Your task to perform on an android device: Add "logitech g pro" to the cart on amazon, then select checkout. Image 0: 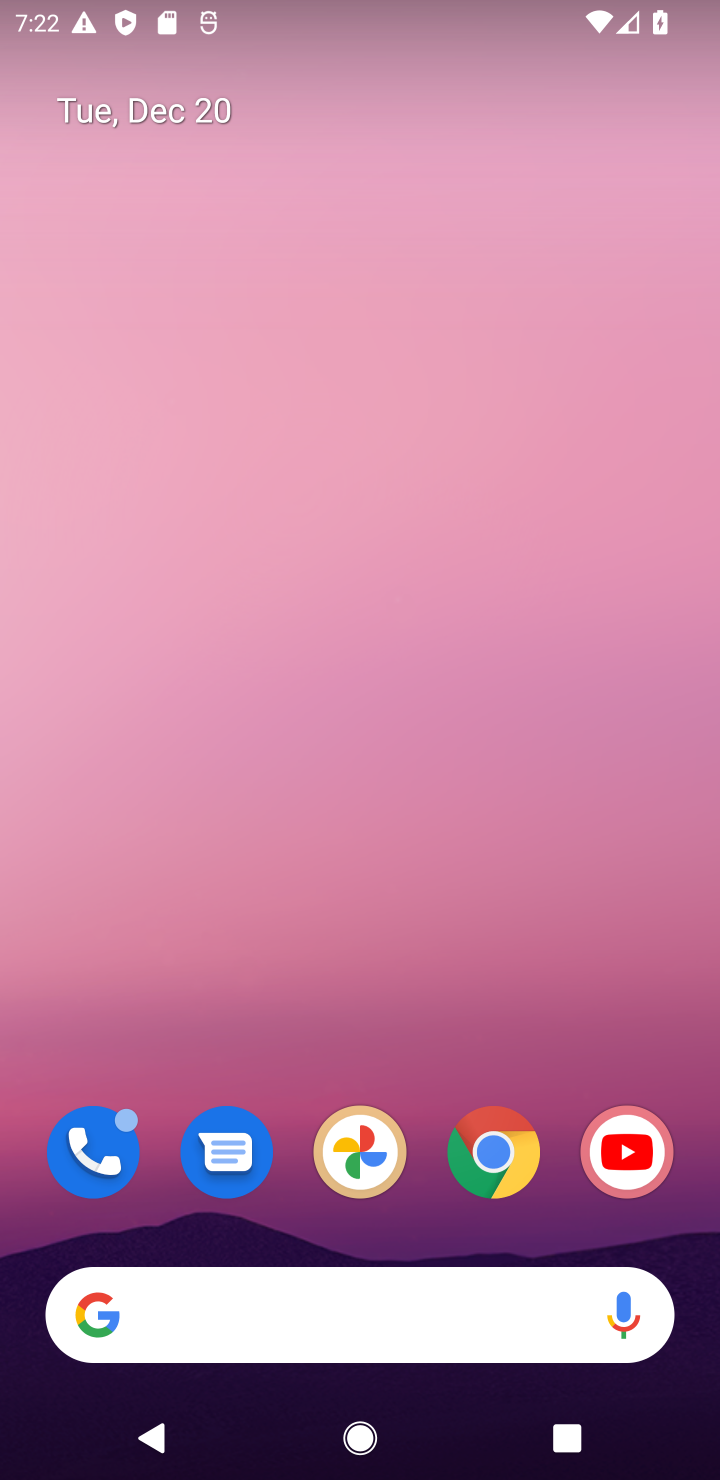
Step 0: click (481, 1148)
Your task to perform on an android device: Add "logitech g pro" to the cart on amazon, then select checkout. Image 1: 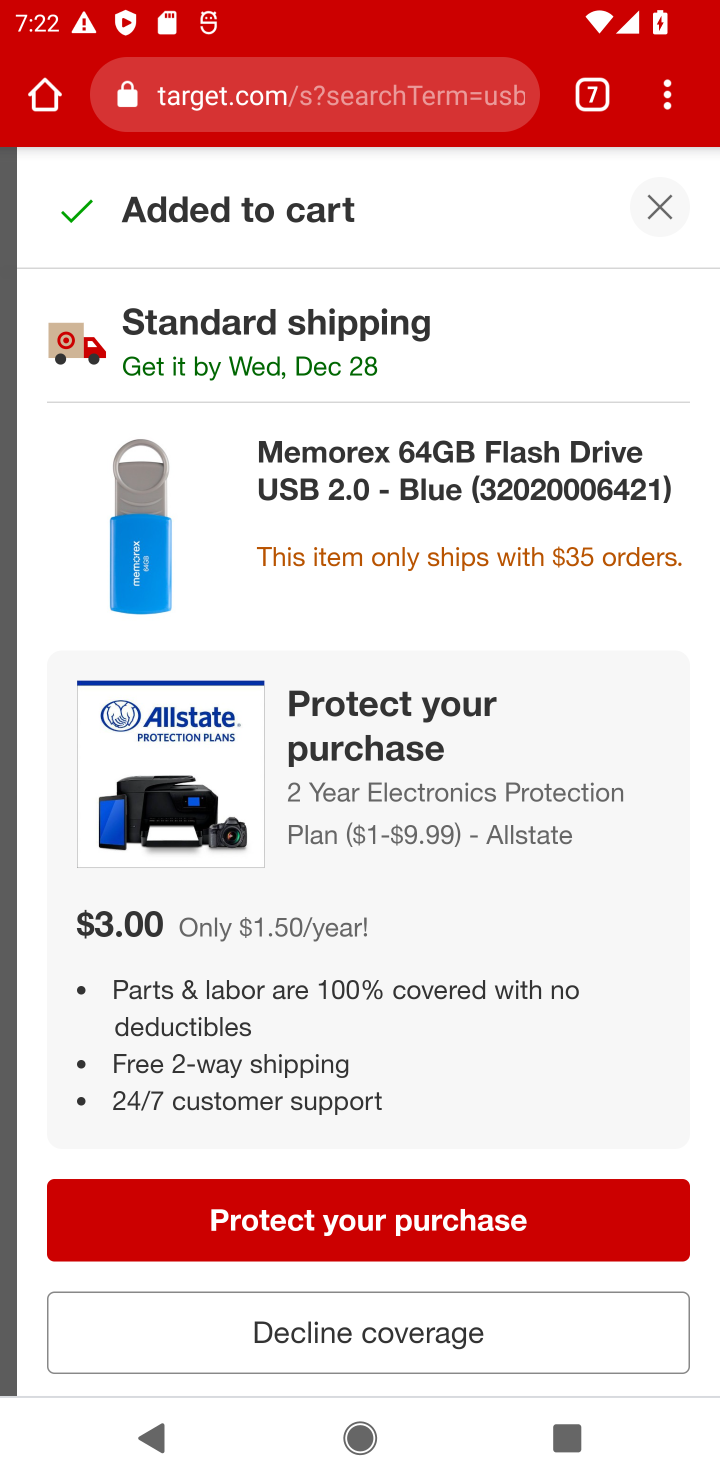
Step 1: click (601, 87)
Your task to perform on an android device: Add "logitech g pro" to the cart on amazon, then select checkout. Image 2: 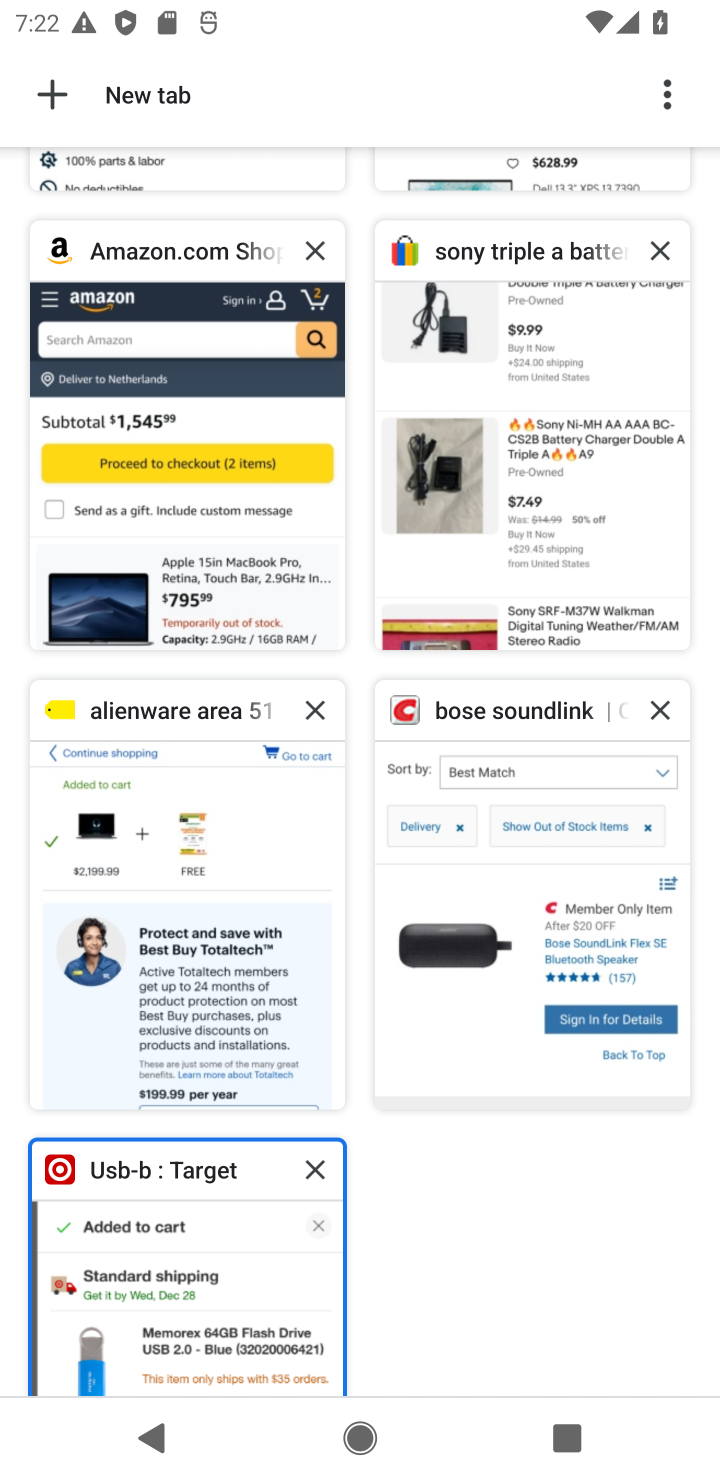
Step 2: press home button
Your task to perform on an android device: Add "logitech g pro" to the cart on amazon, then select checkout. Image 3: 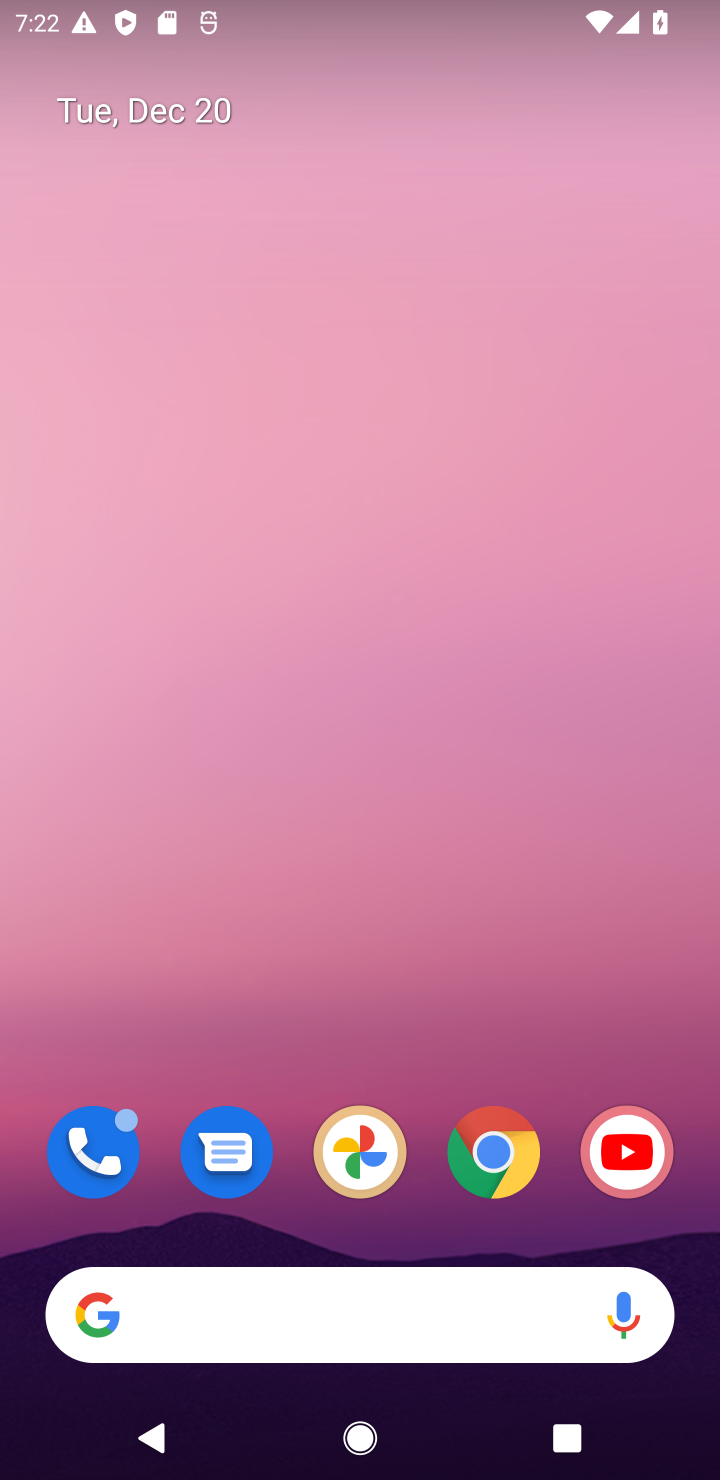
Step 3: click (484, 1155)
Your task to perform on an android device: Add "logitech g pro" to the cart on amazon, then select checkout. Image 4: 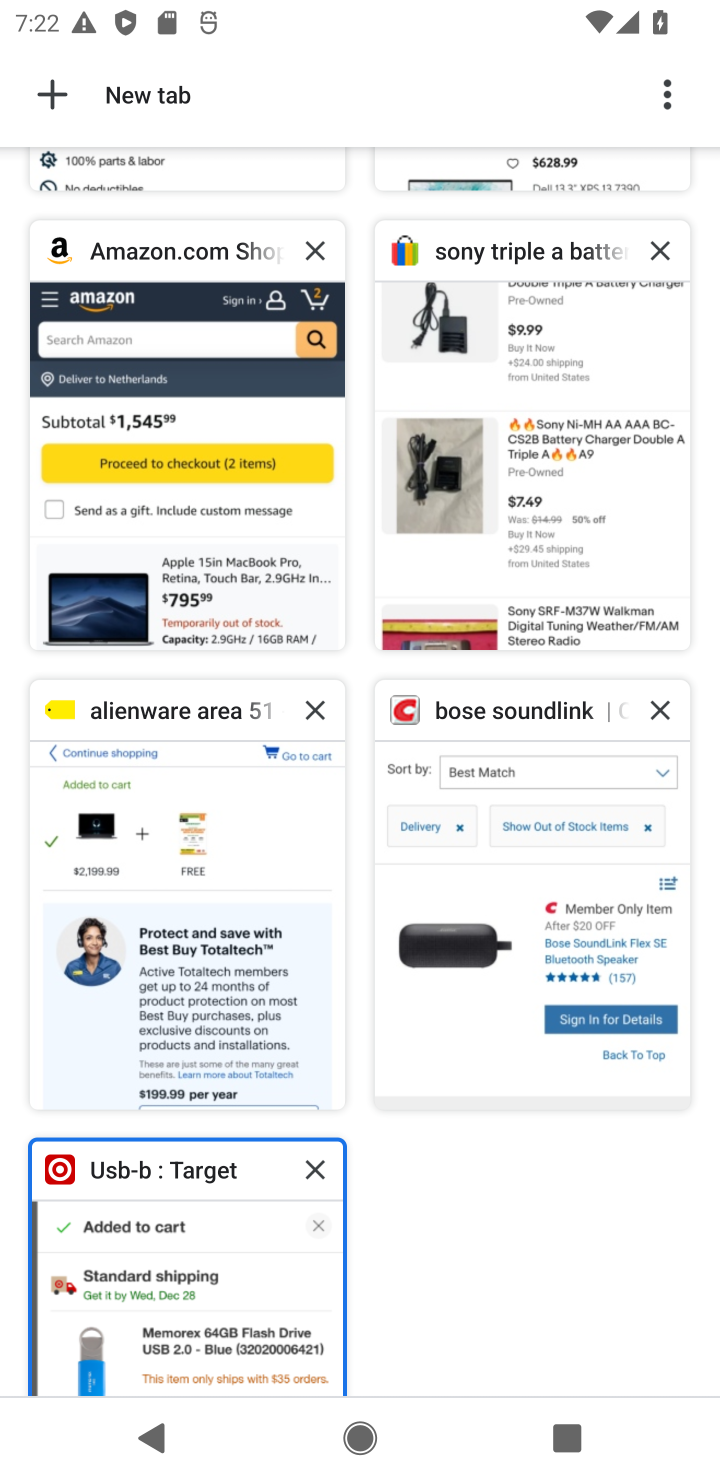
Step 4: click (210, 517)
Your task to perform on an android device: Add "logitech g pro" to the cart on amazon, then select checkout. Image 5: 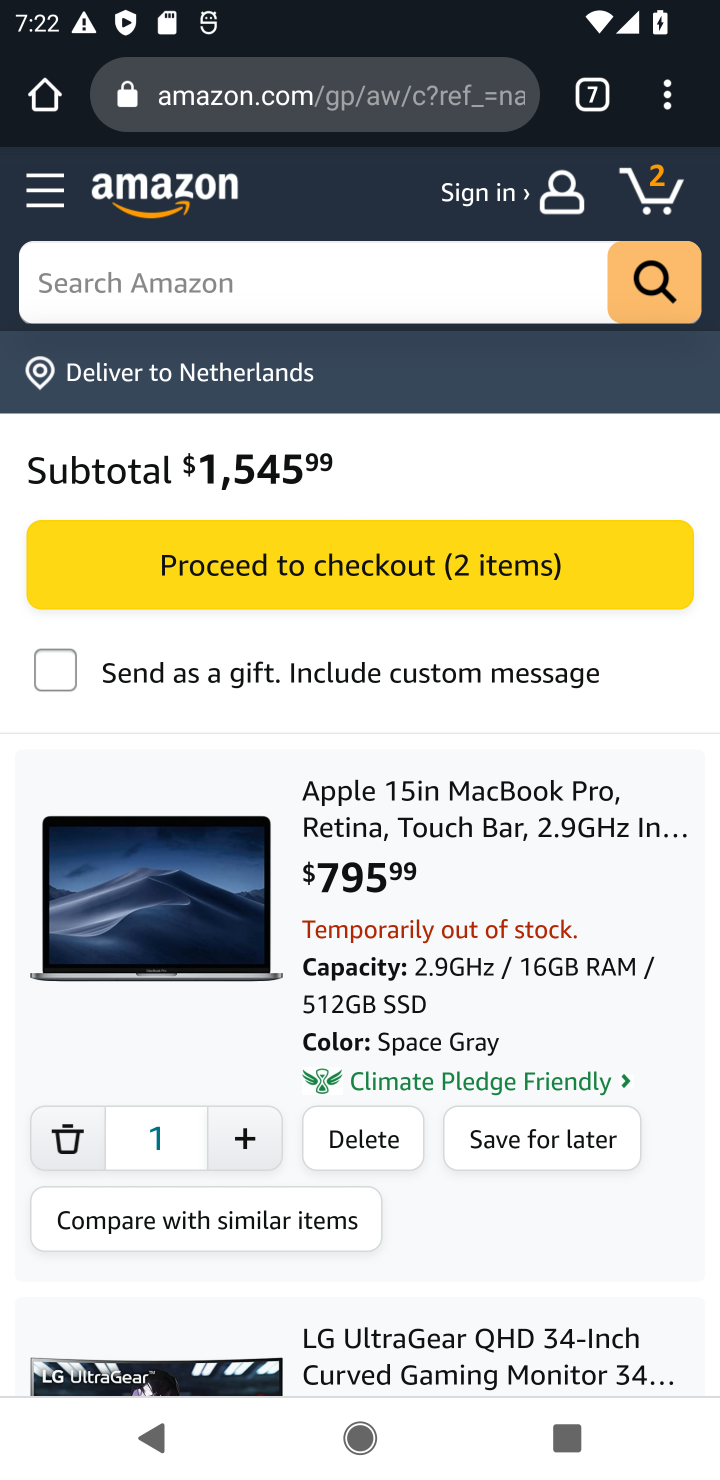
Step 5: click (281, 274)
Your task to perform on an android device: Add "logitech g pro" to the cart on amazon, then select checkout. Image 6: 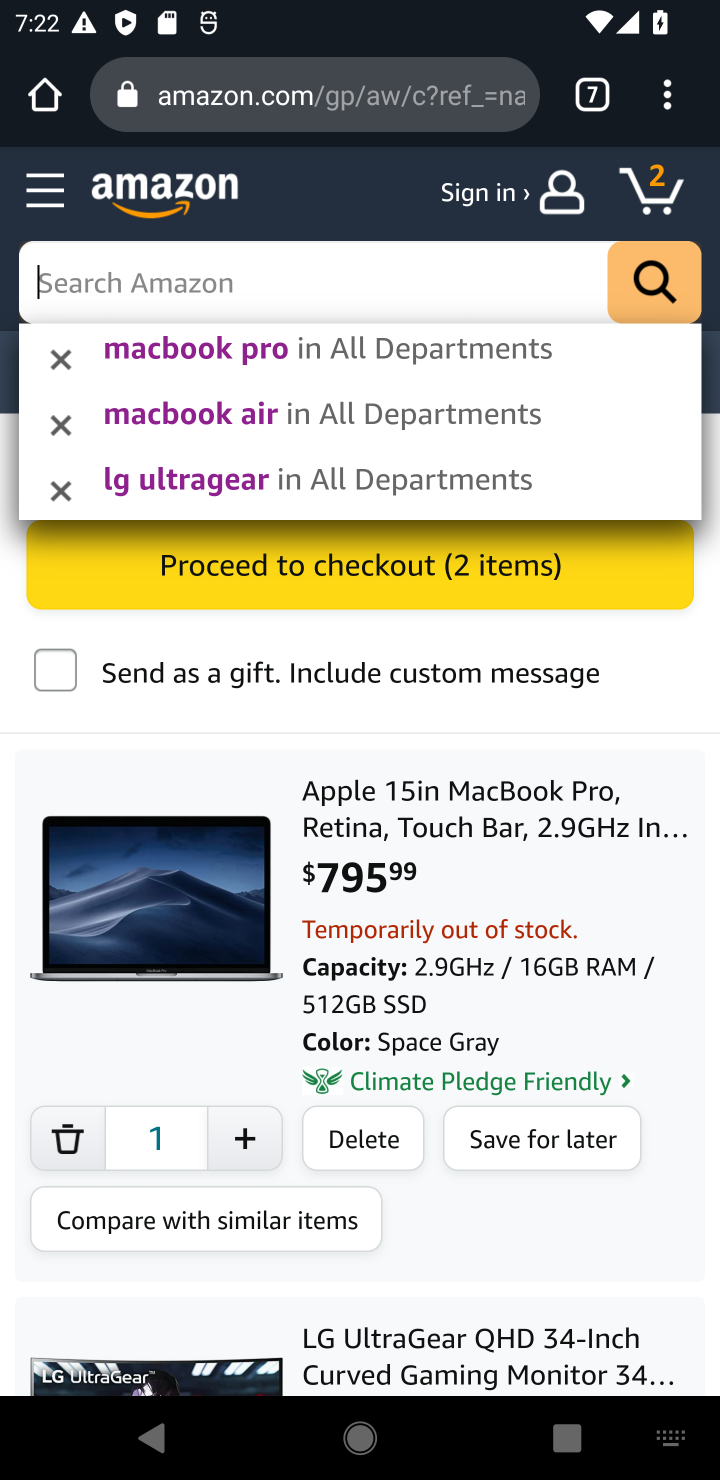
Step 6: type "logitech g pro"
Your task to perform on an android device: Add "logitech g pro" to the cart on amazon, then select checkout. Image 7: 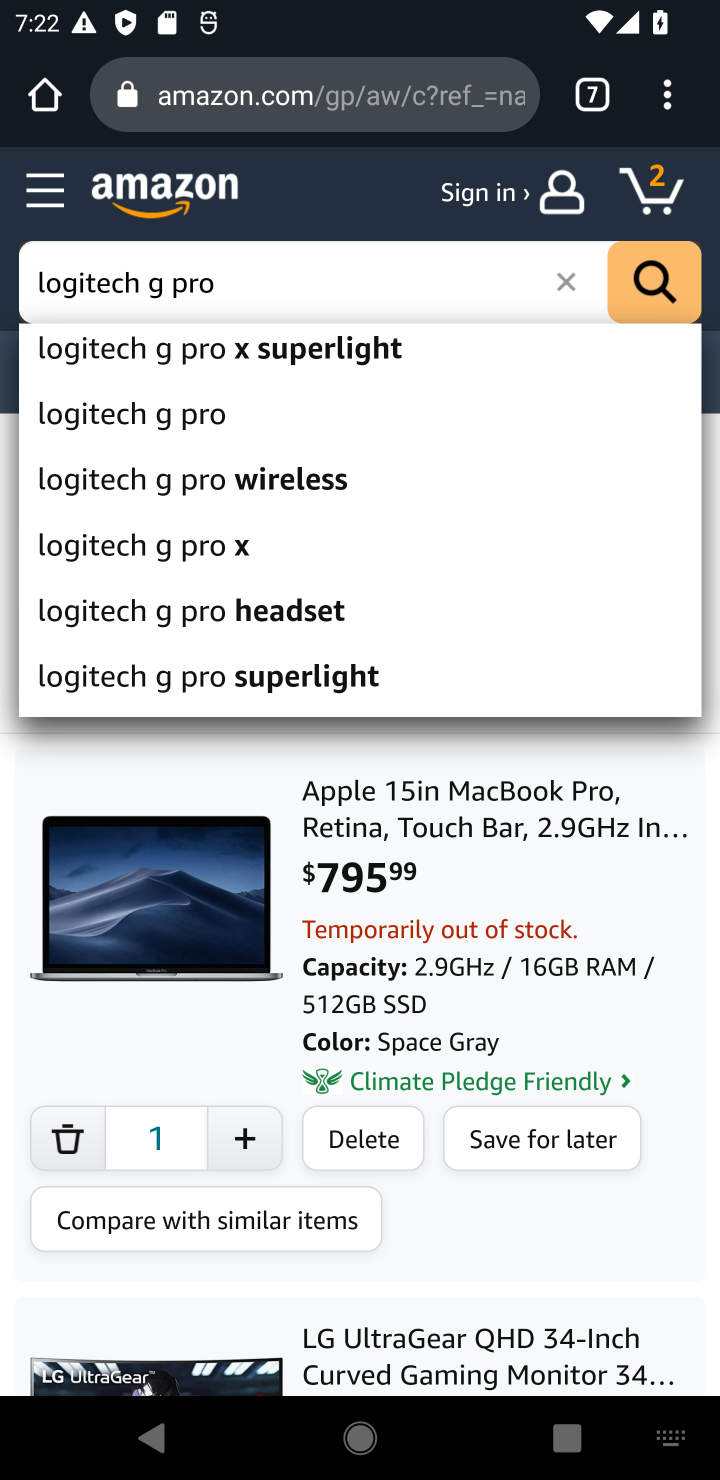
Step 7: click (179, 411)
Your task to perform on an android device: Add "logitech g pro" to the cart on amazon, then select checkout. Image 8: 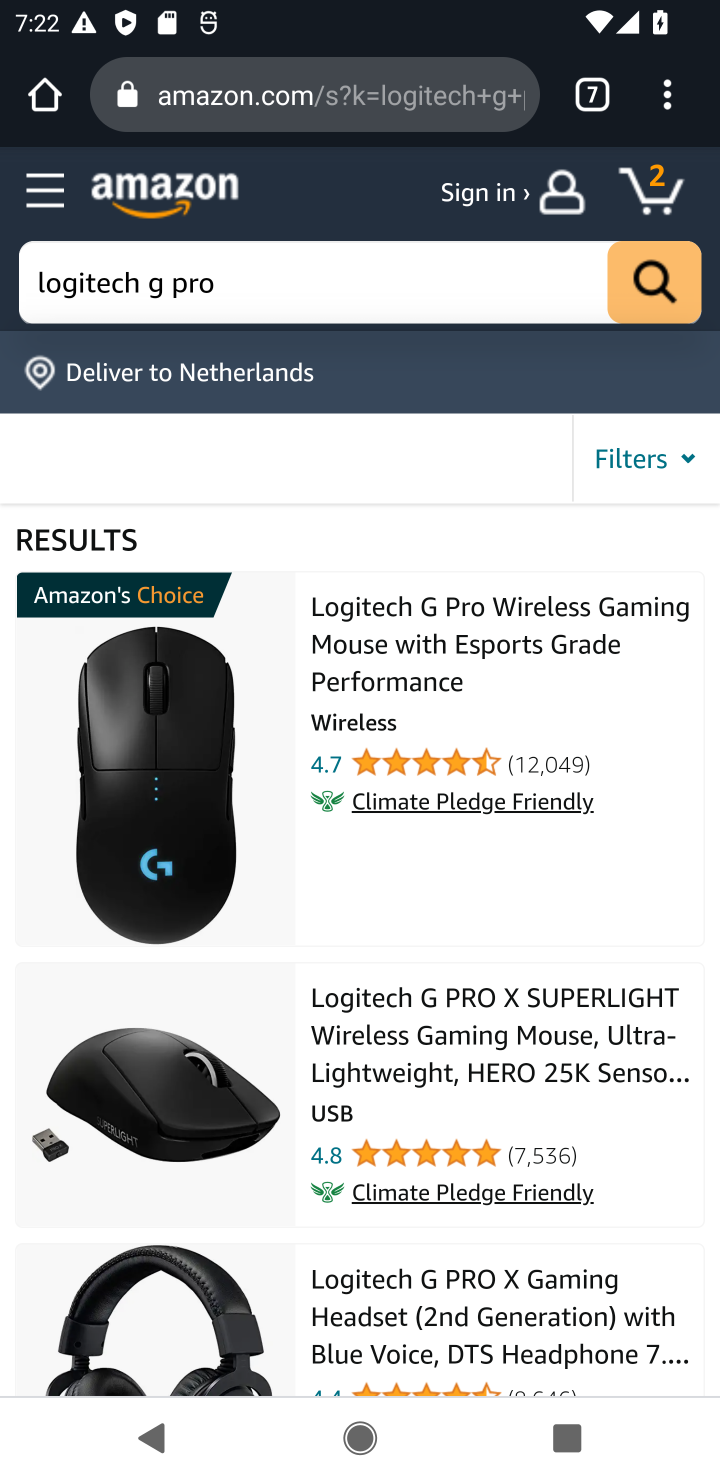
Step 8: click (390, 645)
Your task to perform on an android device: Add "logitech g pro" to the cart on amazon, then select checkout. Image 9: 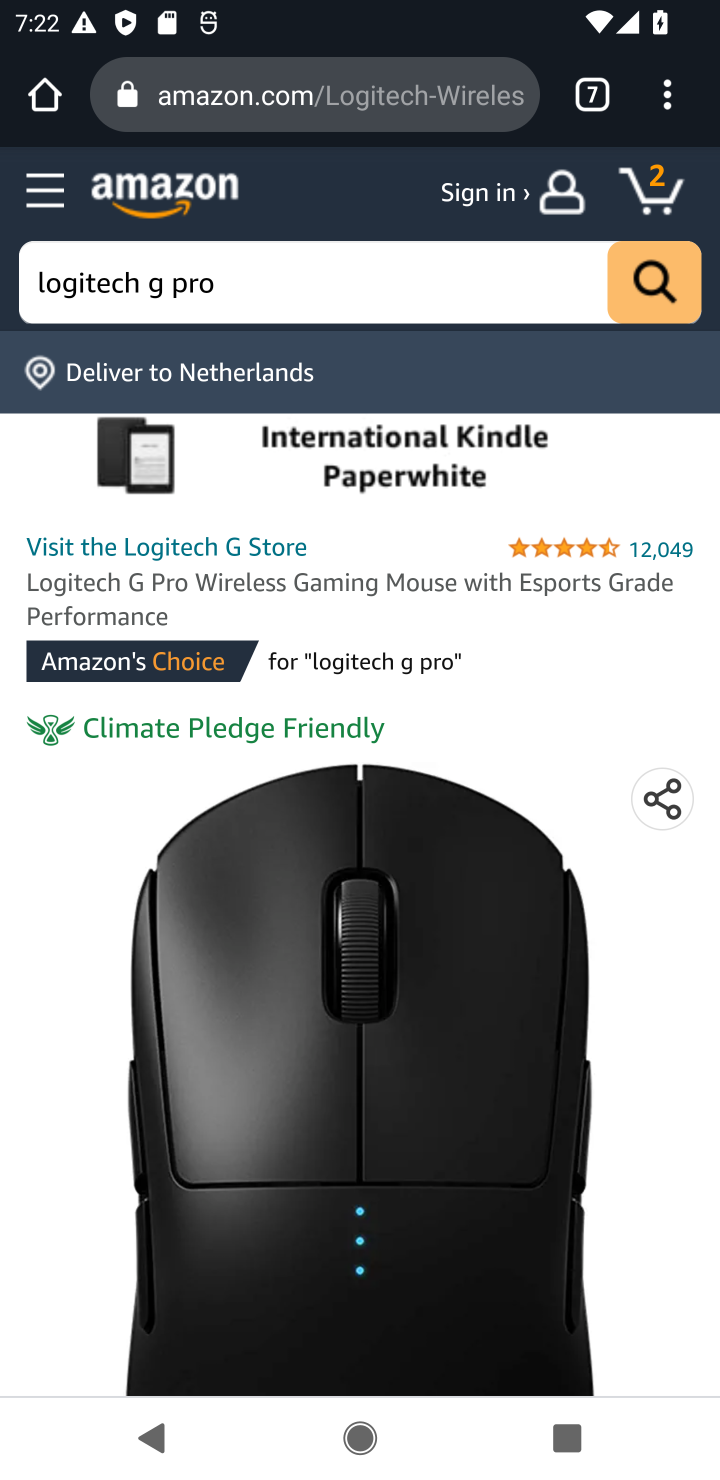
Step 9: drag from (430, 868) to (482, 319)
Your task to perform on an android device: Add "logitech g pro" to the cart on amazon, then select checkout. Image 10: 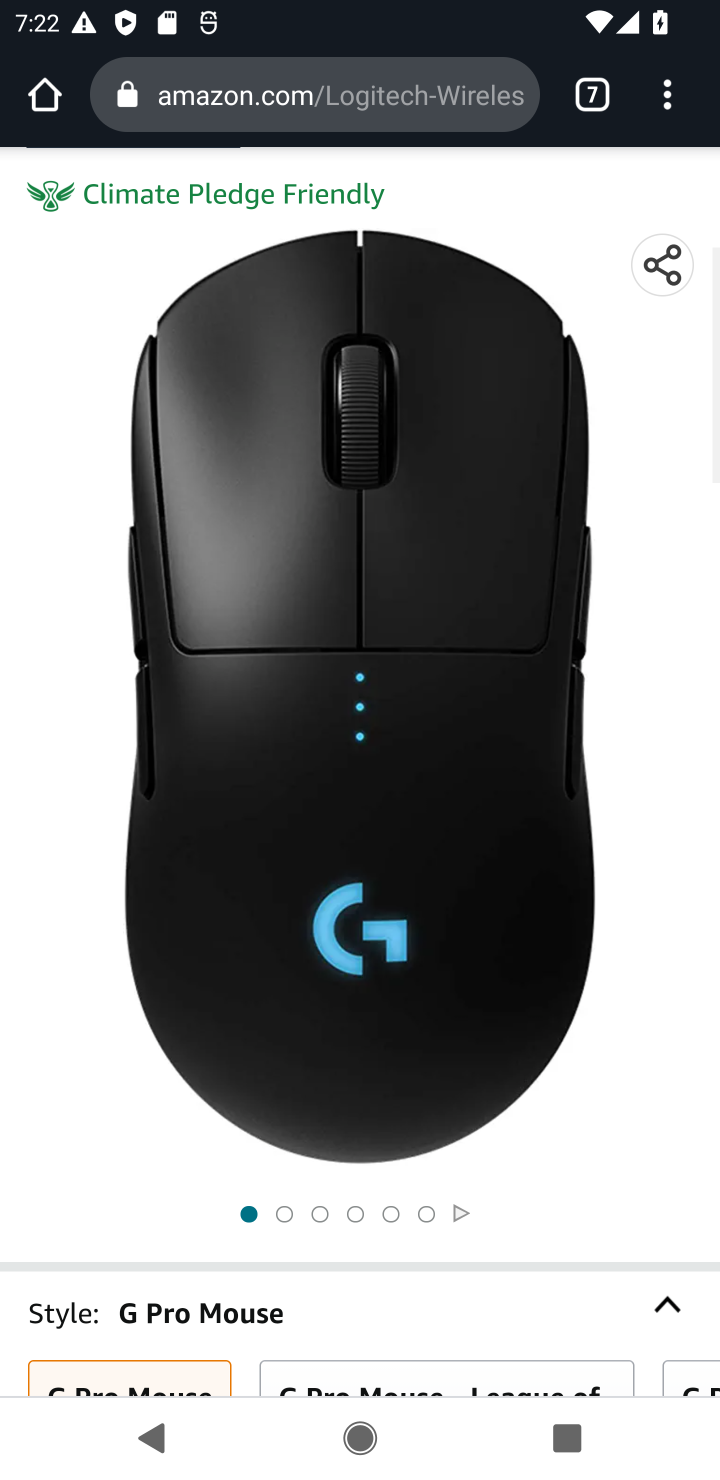
Step 10: drag from (388, 954) to (457, 387)
Your task to perform on an android device: Add "logitech g pro" to the cart on amazon, then select checkout. Image 11: 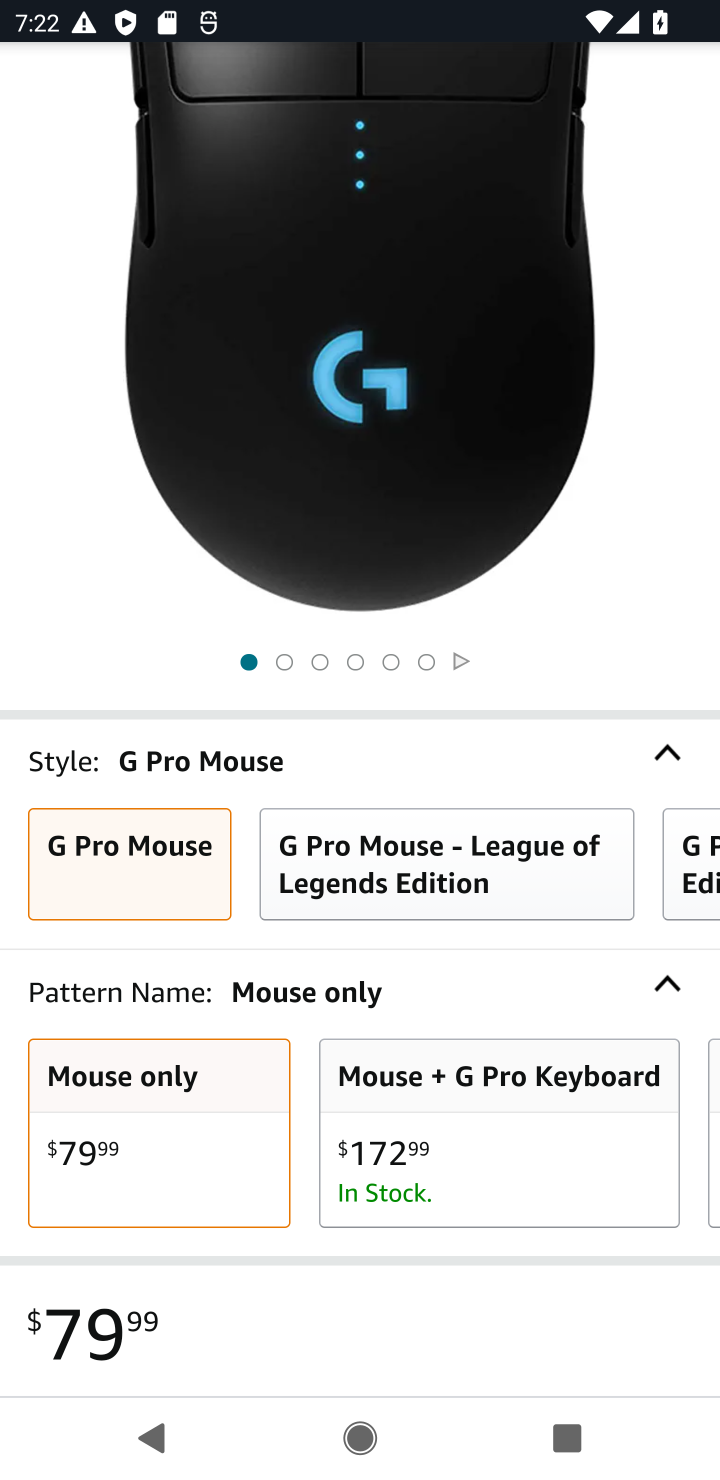
Step 11: drag from (367, 1116) to (494, 714)
Your task to perform on an android device: Add "logitech g pro" to the cart on amazon, then select checkout. Image 12: 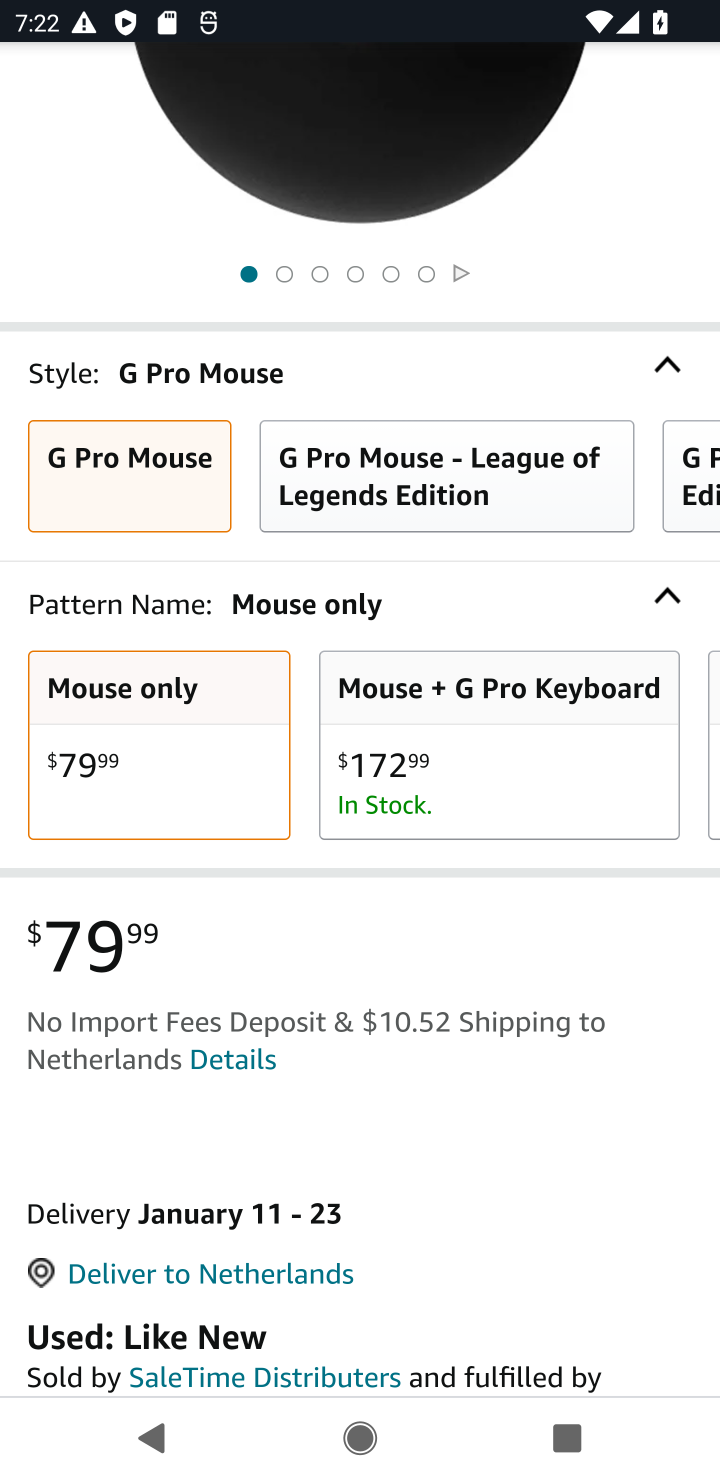
Step 12: drag from (473, 1307) to (589, 550)
Your task to perform on an android device: Add "logitech g pro" to the cart on amazon, then select checkout. Image 13: 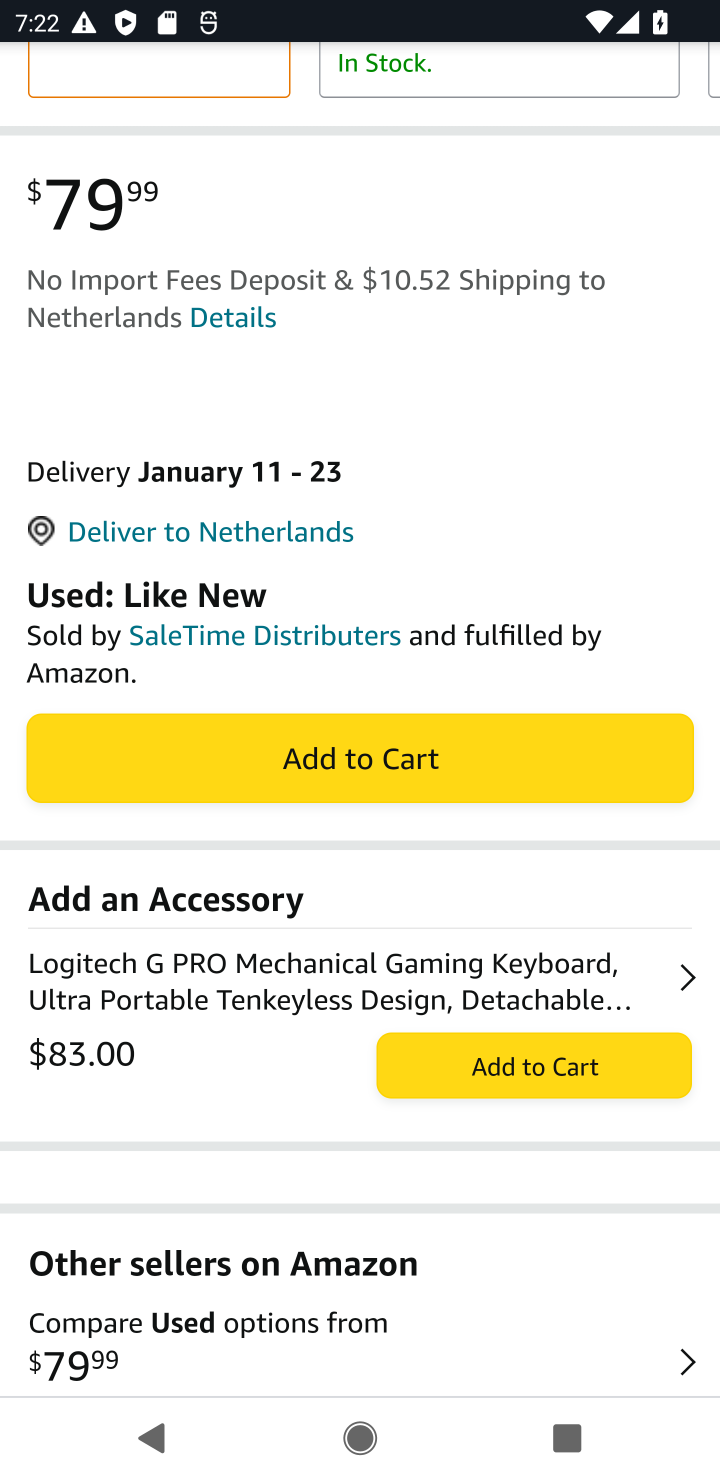
Step 13: click (486, 765)
Your task to perform on an android device: Add "logitech g pro" to the cart on amazon, then select checkout. Image 14: 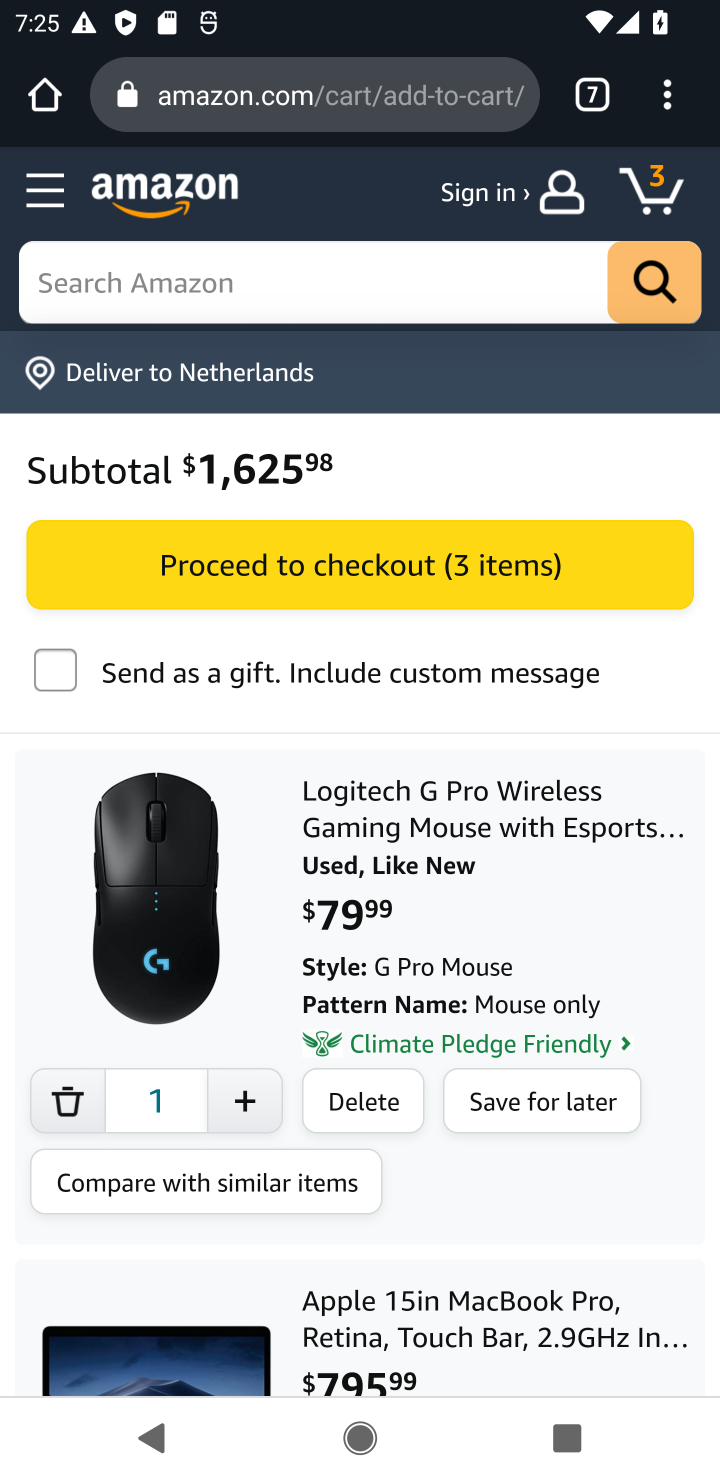
Step 14: task complete